Your task to perform on an android device: check data usage Image 0: 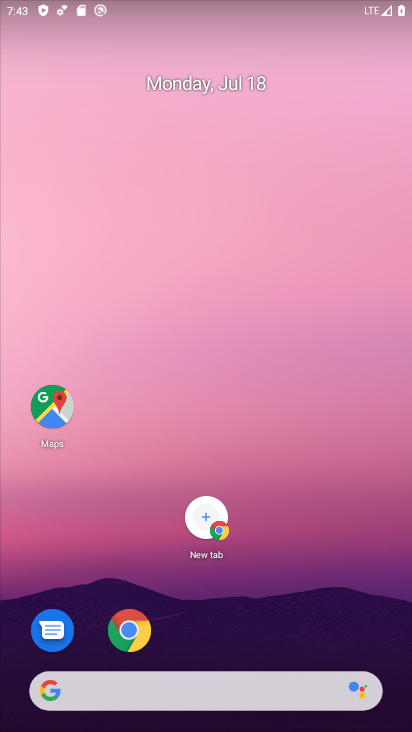
Step 0: drag from (172, 668) to (230, 325)
Your task to perform on an android device: check data usage Image 1: 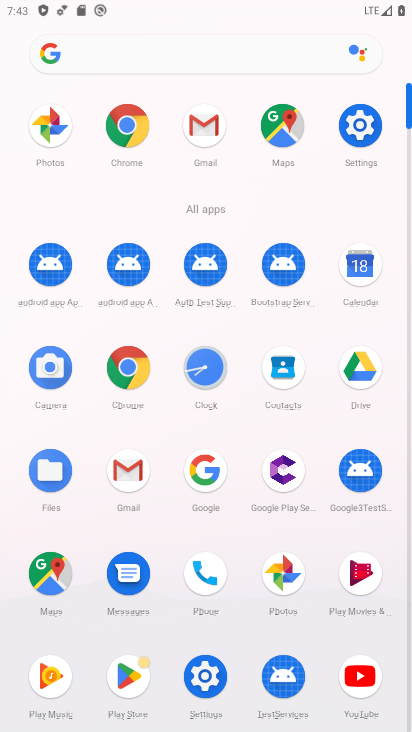
Step 1: click (352, 126)
Your task to perform on an android device: check data usage Image 2: 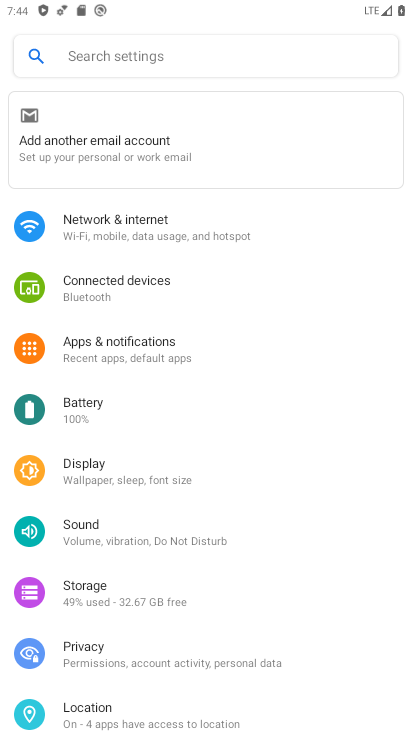
Step 2: click (103, 219)
Your task to perform on an android device: check data usage Image 3: 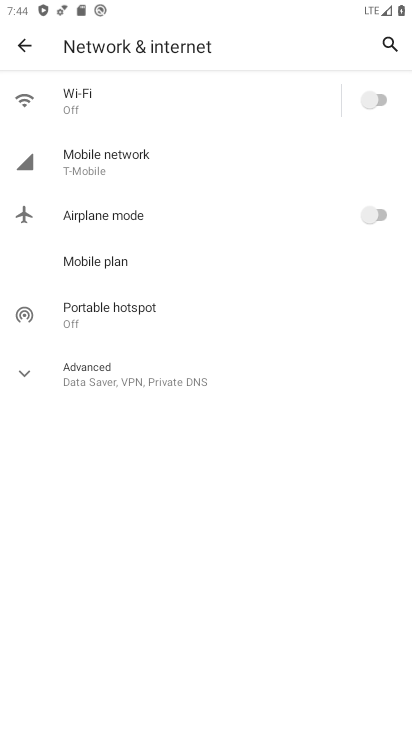
Step 3: click (105, 158)
Your task to perform on an android device: check data usage Image 4: 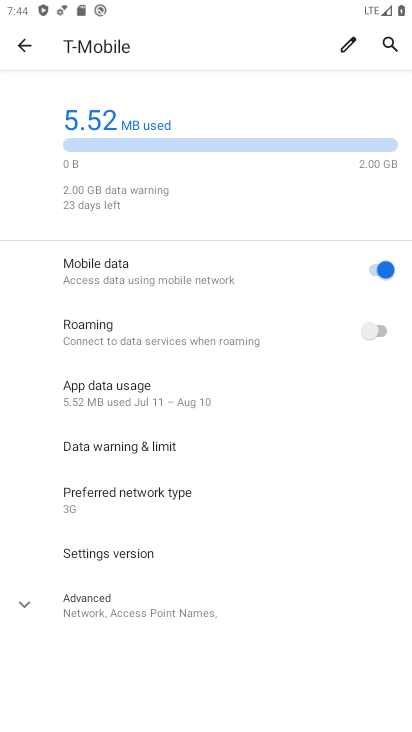
Step 4: task complete